Your task to perform on an android device: empty trash in the gmail app Image 0: 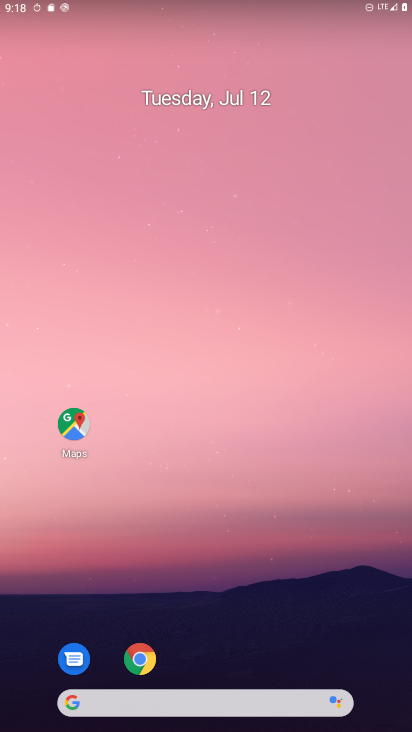
Step 0: drag from (387, 694) to (276, 5)
Your task to perform on an android device: empty trash in the gmail app Image 1: 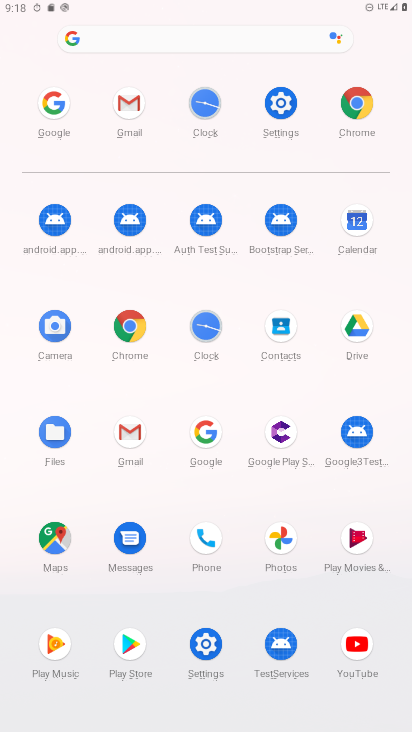
Step 1: click (117, 100)
Your task to perform on an android device: empty trash in the gmail app Image 2: 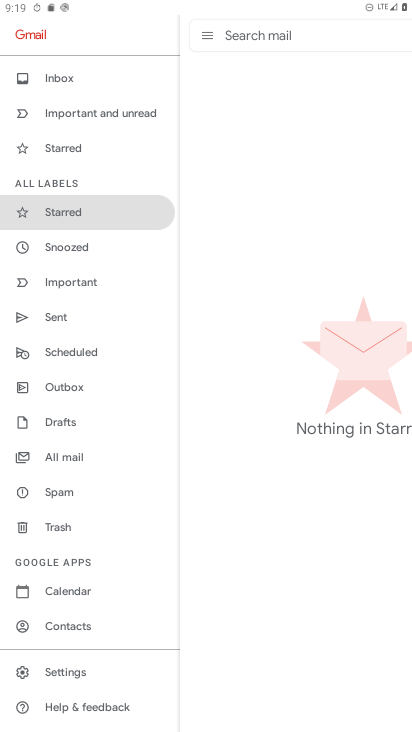
Step 2: click (74, 522)
Your task to perform on an android device: empty trash in the gmail app Image 3: 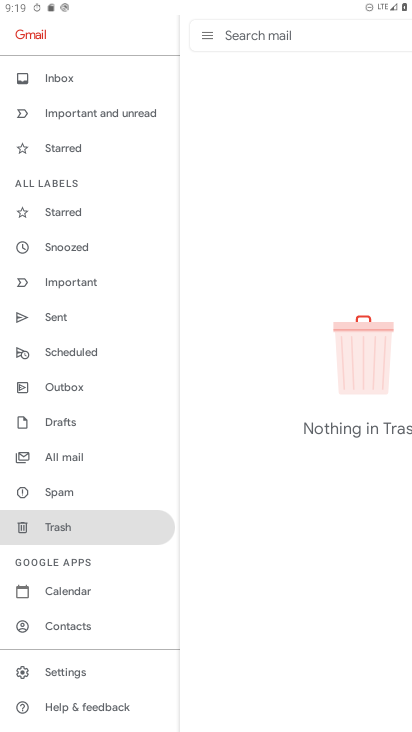
Step 3: task complete